Your task to perform on an android device: show emergency info Image 0: 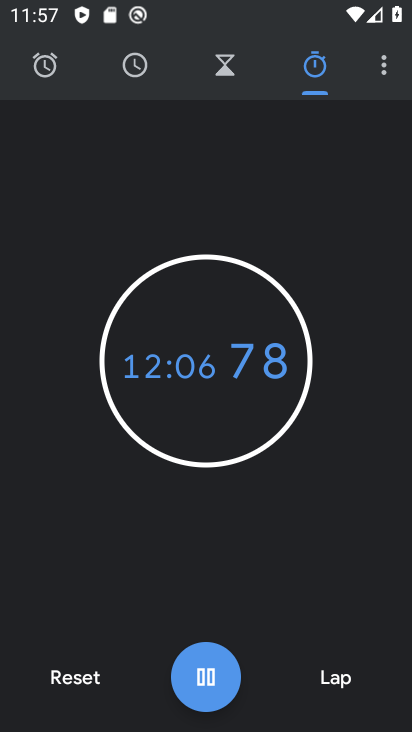
Step 0: press home button
Your task to perform on an android device: show emergency info Image 1: 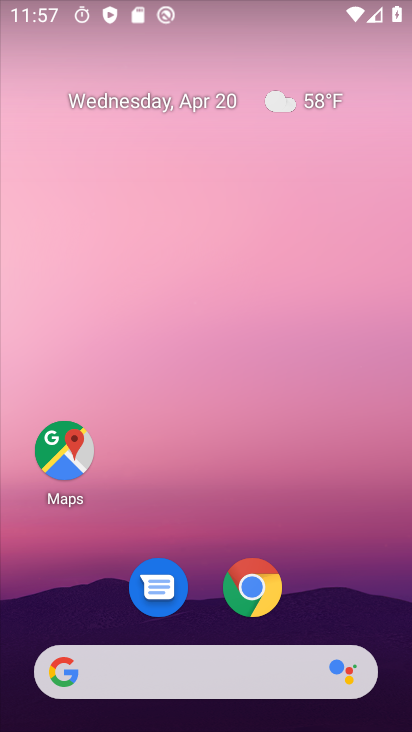
Step 1: drag from (297, 612) to (367, 19)
Your task to perform on an android device: show emergency info Image 2: 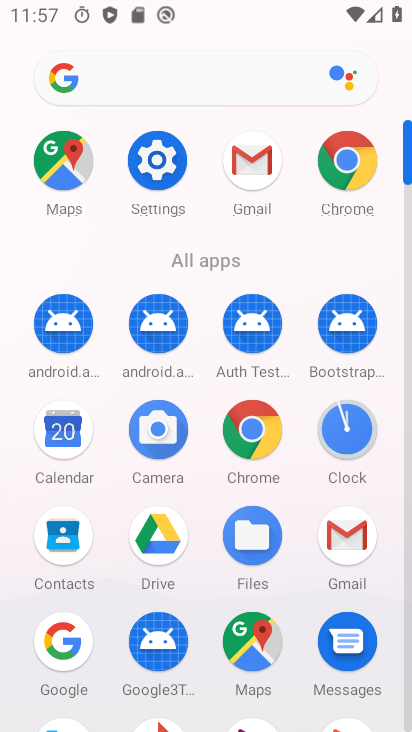
Step 2: click (161, 187)
Your task to perform on an android device: show emergency info Image 3: 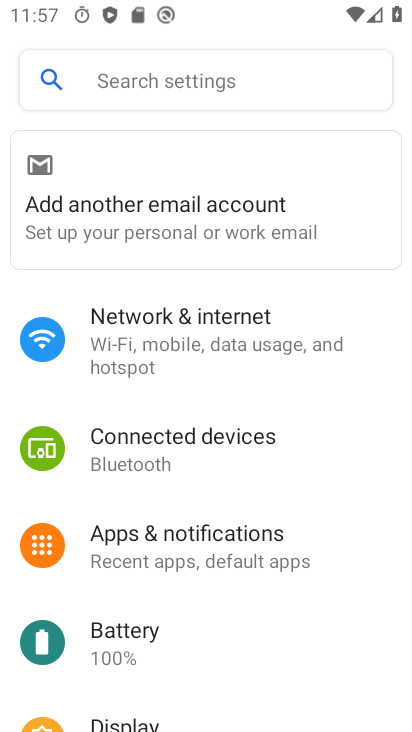
Step 3: drag from (180, 572) to (307, 19)
Your task to perform on an android device: show emergency info Image 4: 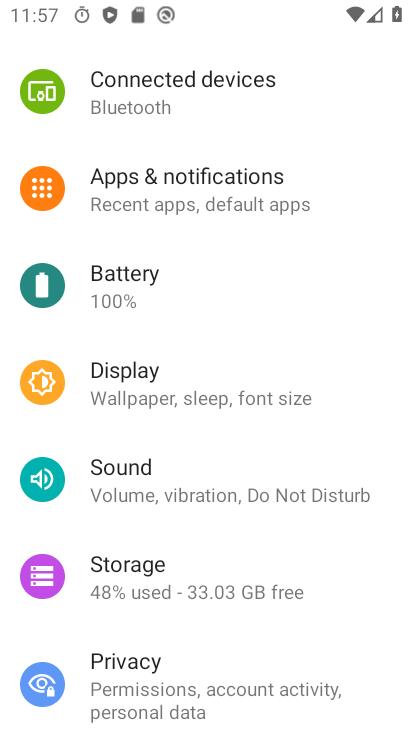
Step 4: drag from (221, 575) to (305, 27)
Your task to perform on an android device: show emergency info Image 5: 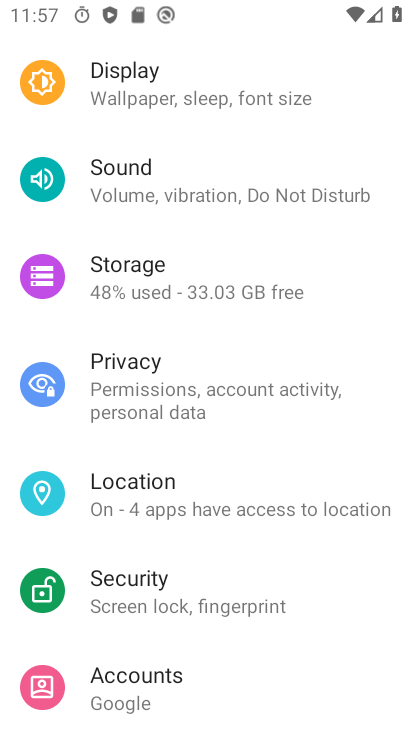
Step 5: drag from (188, 652) to (308, 0)
Your task to perform on an android device: show emergency info Image 6: 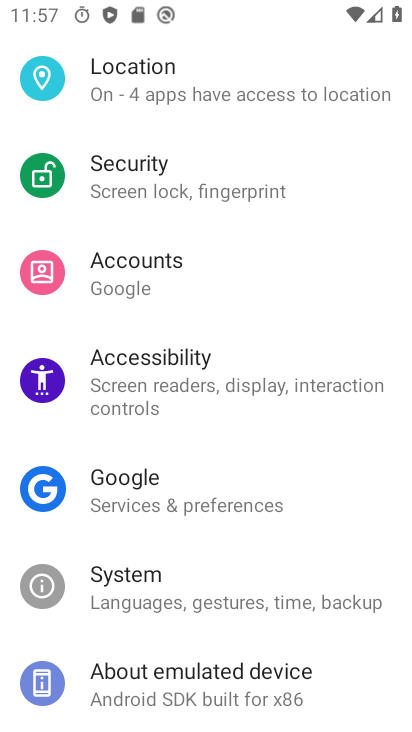
Step 6: click (199, 682)
Your task to perform on an android device: show emergency info Image 7: 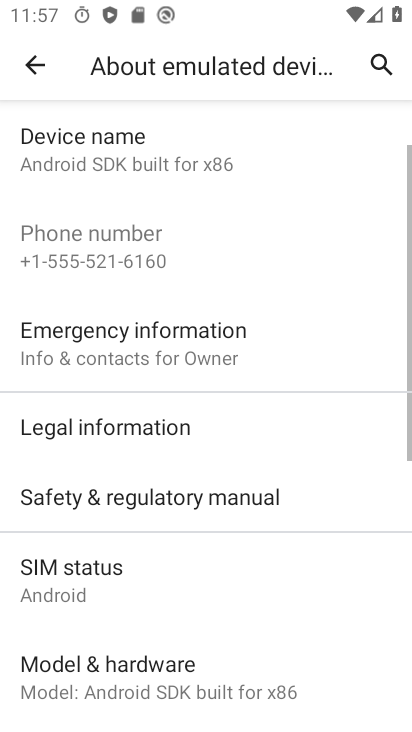
Step 7: click (158, 340)
Your task to perform on an android device: show emergency info Image 8: 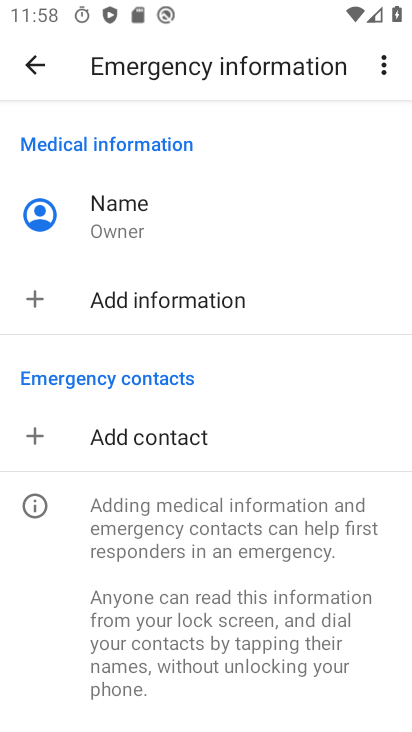
Step 8: task complete